Your task to perform on an android device: Open Youtube and go to the subscriptions tab Image 0: 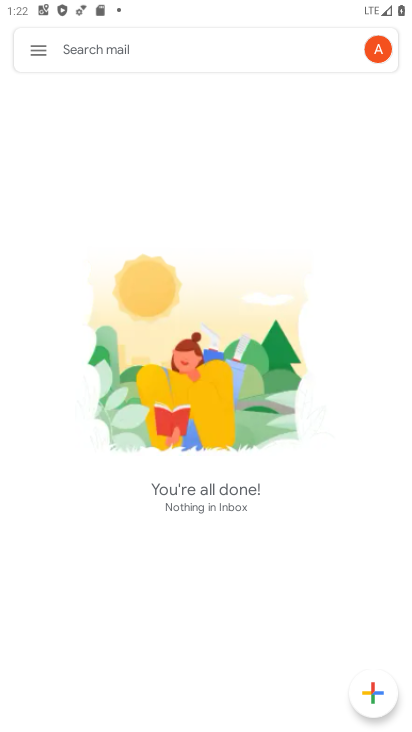
Step 0: press home button
Your task to perform on an android device: Open Youtube and go to the subscriptions tab Image 1: 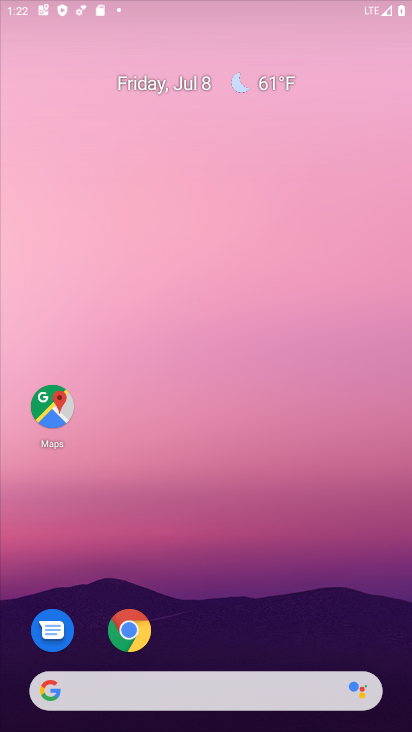
Step 1: drag from (395, 682) to (278, 88)
Your task to perform on an android device: Open Youtube and go to the subscriptions tab Image 2: 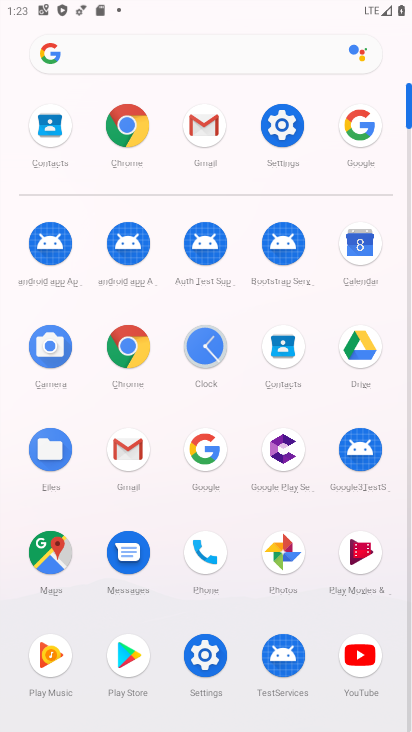
Step 2: click (363, 658)
Your task to perform on an android device: Open Youtube and go to the subscriptions tab Image 3: 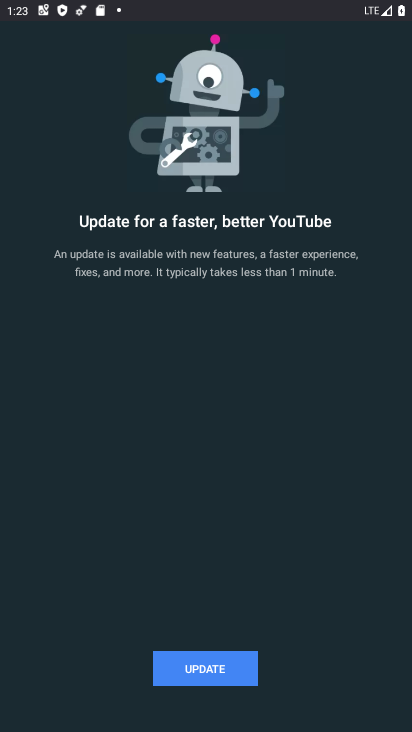
Step 3: click (183, 666)
Your task to perform on an android device: Open Youtube and go to the subscriptions tab Image 4: 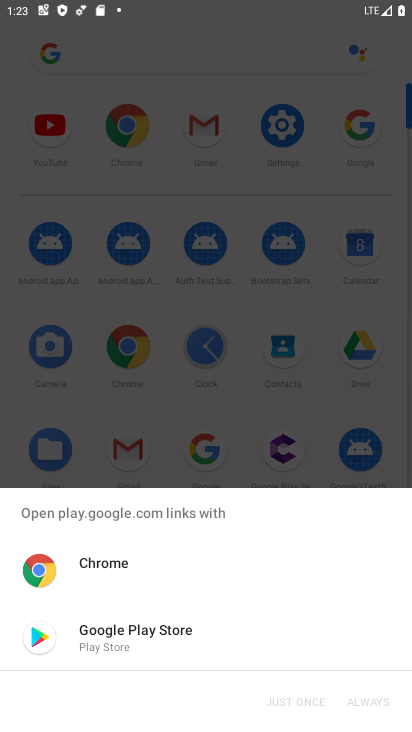
Step 4: click (179, 634)
Your task to perform on an android device: Open Youtube and go to the subscriptions tab Image 5: 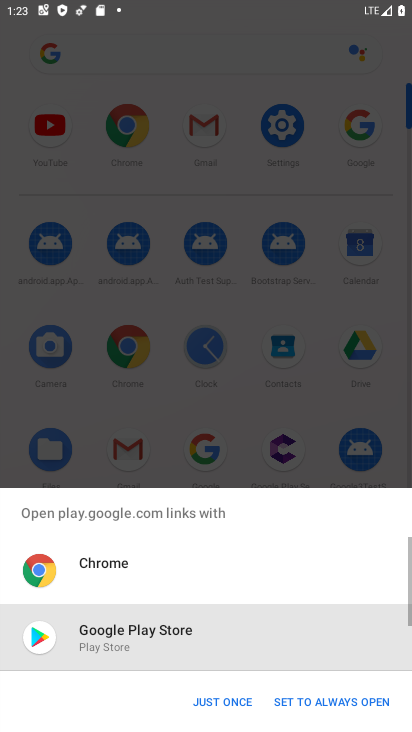
Step 5: click (215, 697)
Your task to perform on an android device: Open Youtube and go to the subscriptions tab Image 6: 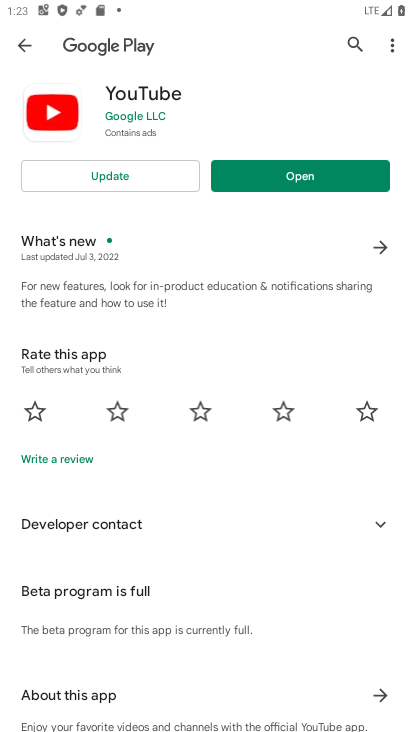
Step 6: click (106, 175)
Your task to perform on an android device: Open Youtube and go to the subscriptions tab Image 7: 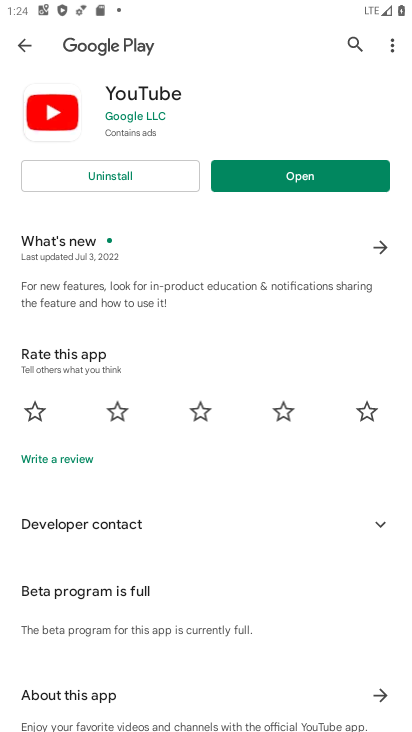
Step 7: click (286, 178)
Your task to perform on an android device: Open Youtube and go to the subscriptions tab Image 8: 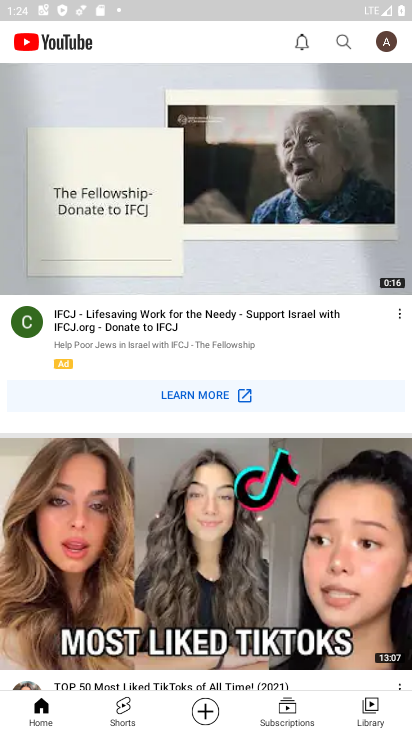
Step 8: click (290, 712)
Your task to perform on an android device: Open Youtube and go to the subscriptions tab Image 9: 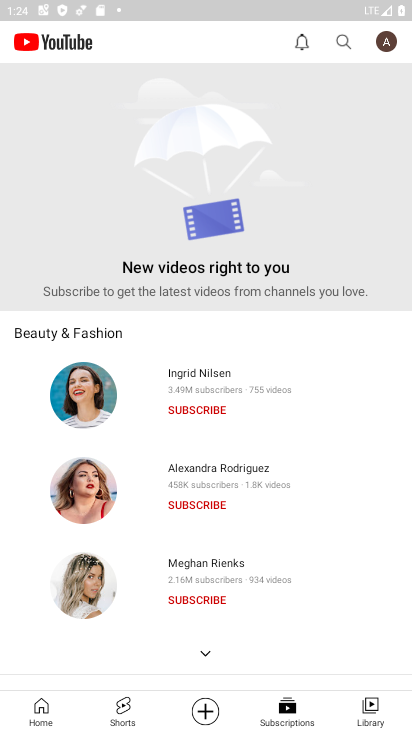
Step 9: task complete